Your task to perform on an android device: create a new album in the google photos Image 0: 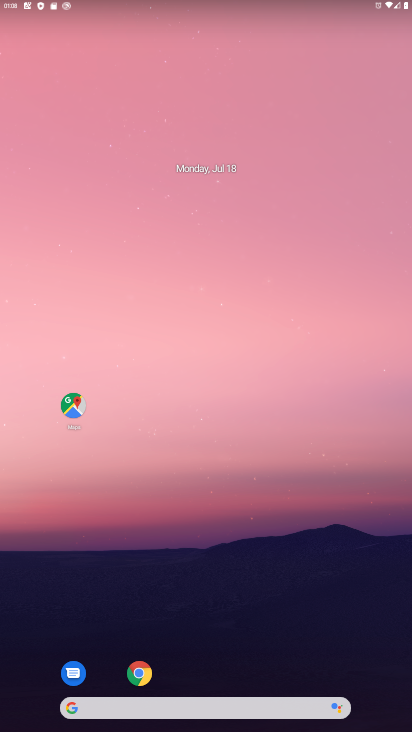
Step 0: drag from (296, 674) to (256, 231)
Your task to perform on an android device: create a new album in the google photos Image 1: 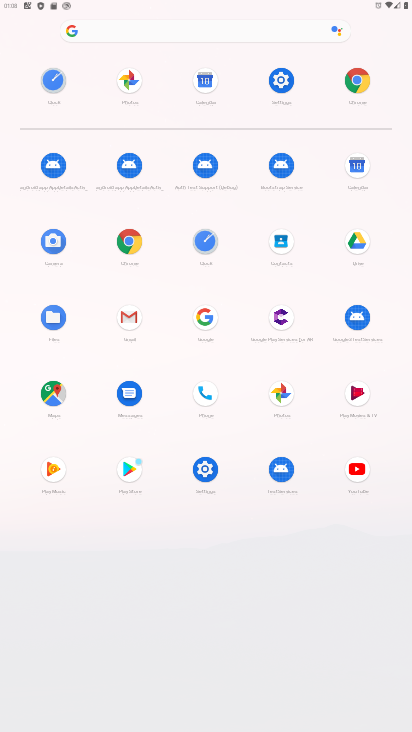
Step 1: click (130, 77)
Your task to perform on an android device: create a new album in the google photos Image 2: 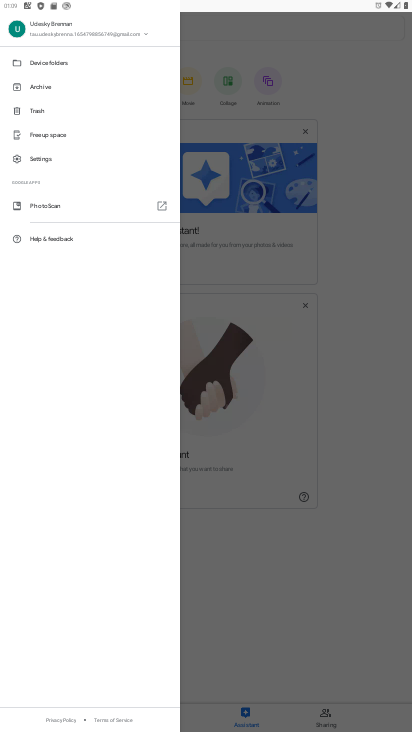
Step 2: click (276, 515)
Your task to perform on an android device: create a new album in the google photos Image 3: 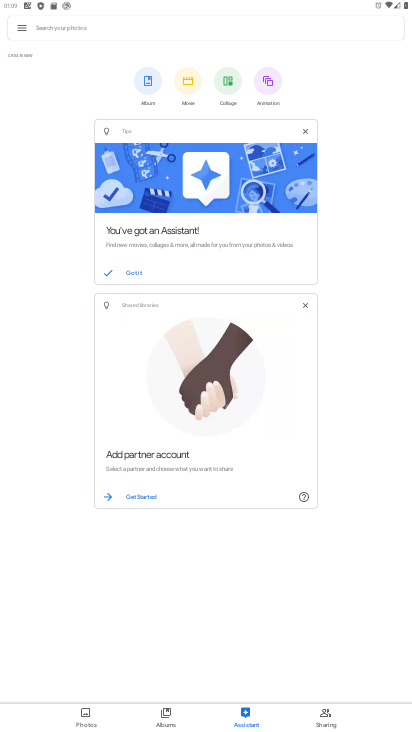
Step 3: click (168, 718)
Your task to perform on an android device: create a new album in the google photos Image 4: 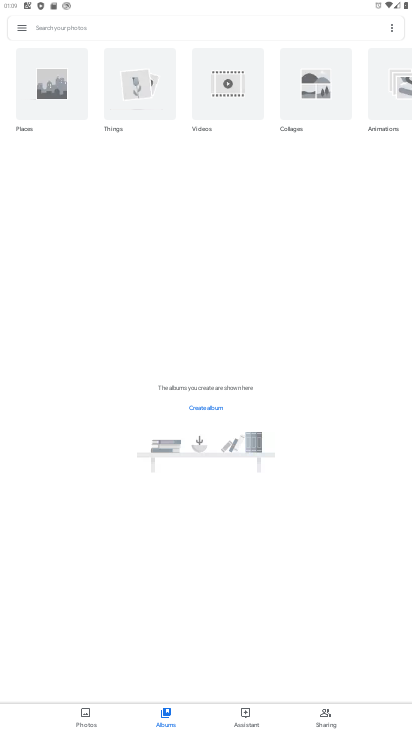
Step 4: task complete